Your task to perform on an android device: set default search engine in the chrome app Image 0: 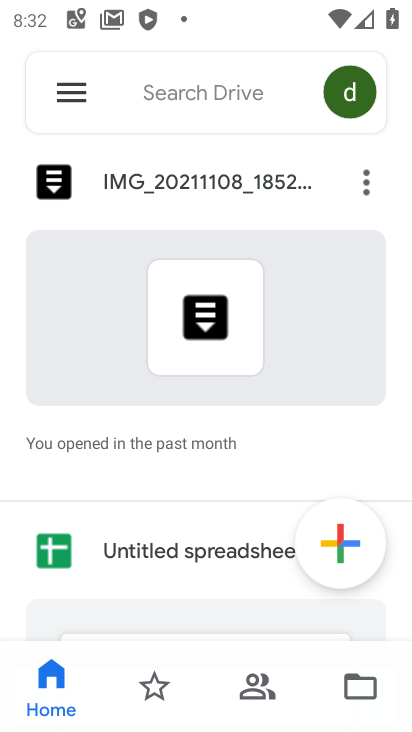
Step 0: press home button
Your task to perform on an android device: set default search engine in the chrome app Image 1: 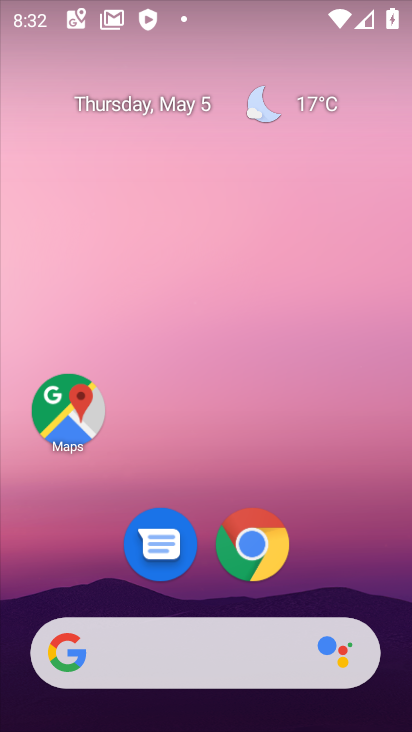
Step 1: click (265, 532)
Your task to perform on an android device: set default search engine in the chrome app Image 2: 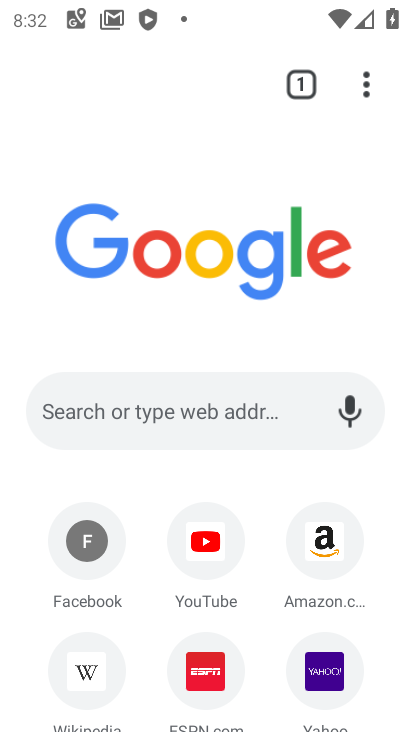
Step 2: click (371, 87)
Your task to perform on an android device: set default search engine in the chrome app Image 3: 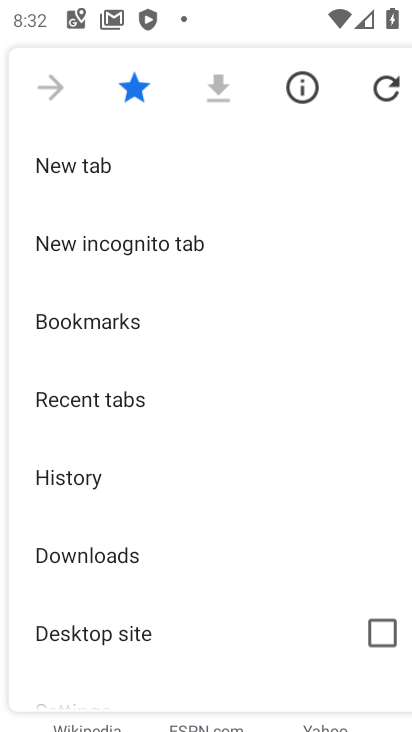
Step 3: drag from (172, 583) to (217, 136)
Your task to perform on an android device: set default search engine in the chrome app Image 4: 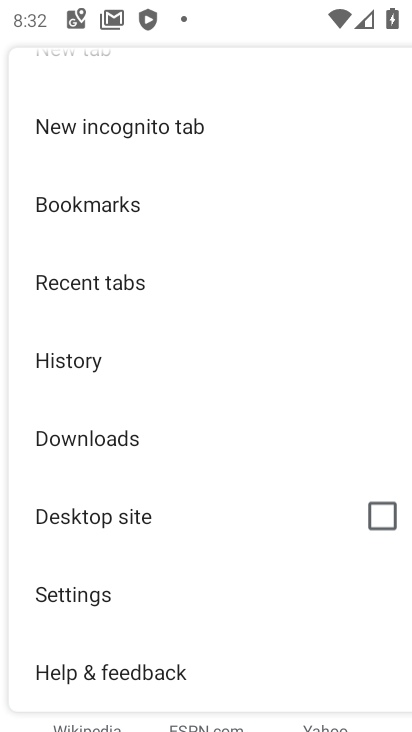
Step 4: click (163, 573)
Your task to perform on an android device: set default search engine in the chrome app Image 5: 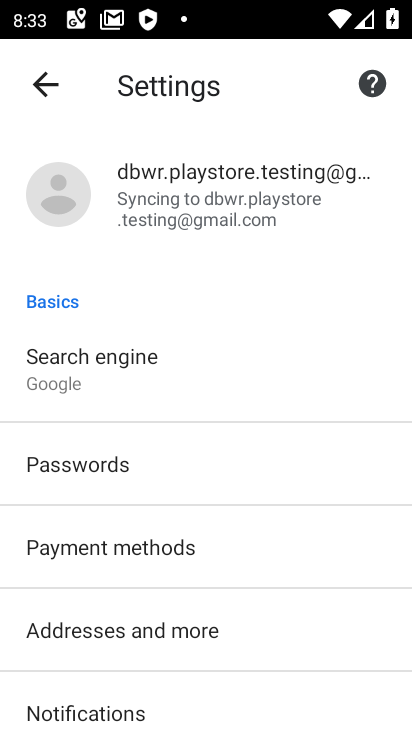
Step 5: click (178, 393)
Your task to perform on an android device: set default search engine in the chrome app Image 6: 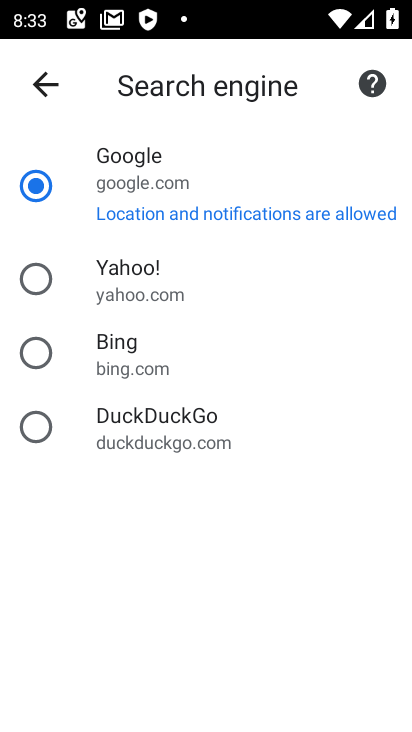
Step 6: click (165, 280)
Your task to perform on an android device: set default search engine in the chrome app Image 7: 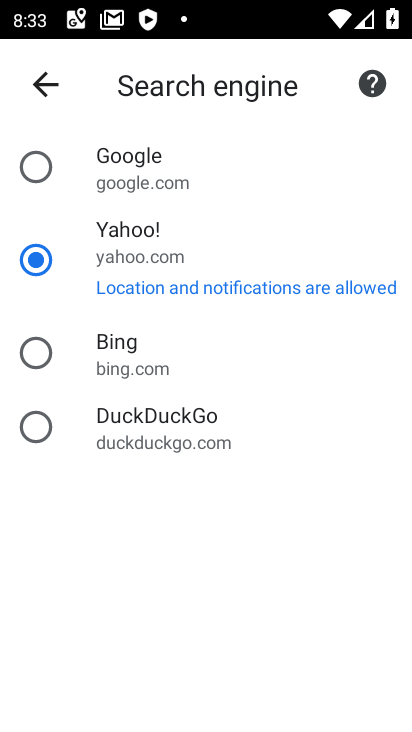
Step 7: task complete